Your task to perform on an android device: snooze an email in the gmail app Image 0: 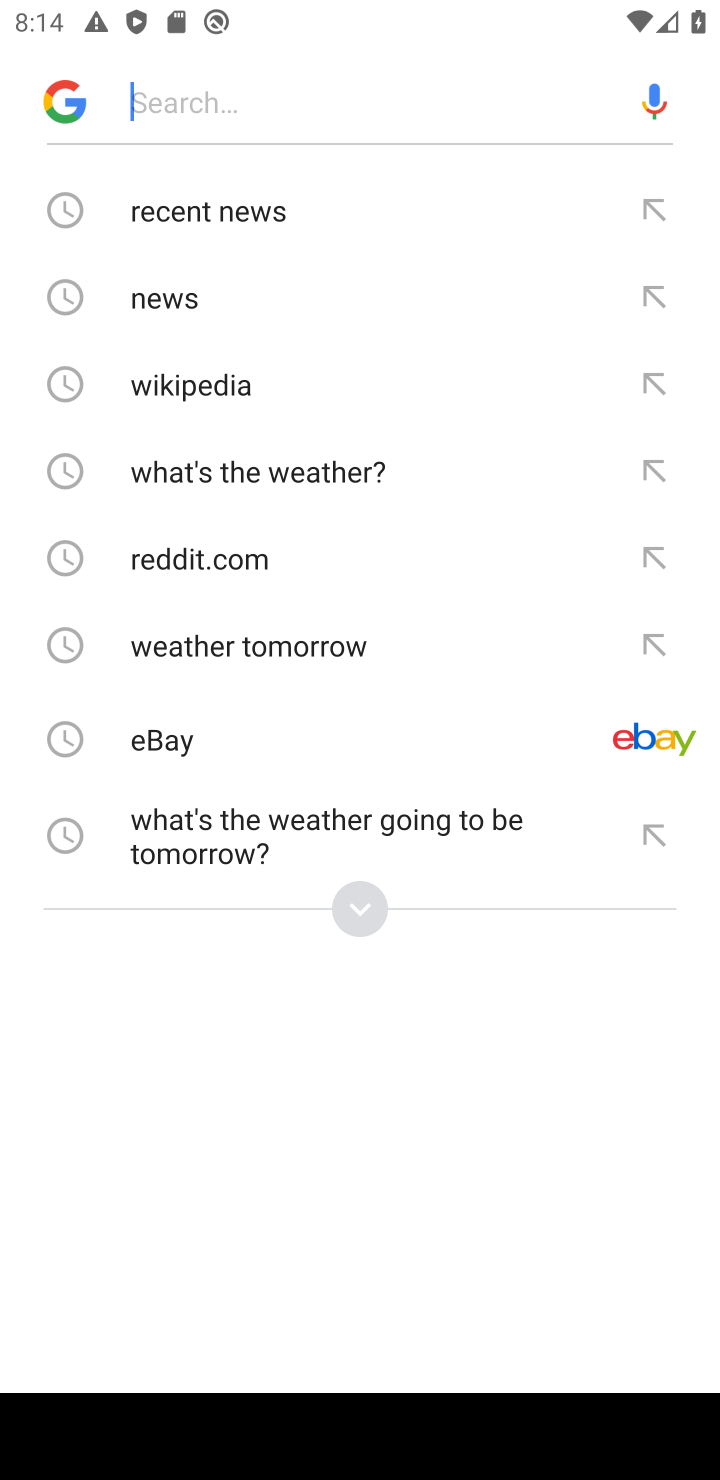
Step 0: press home button
Your task to perform on an android device: snooze an email in the gmail app Image 1: 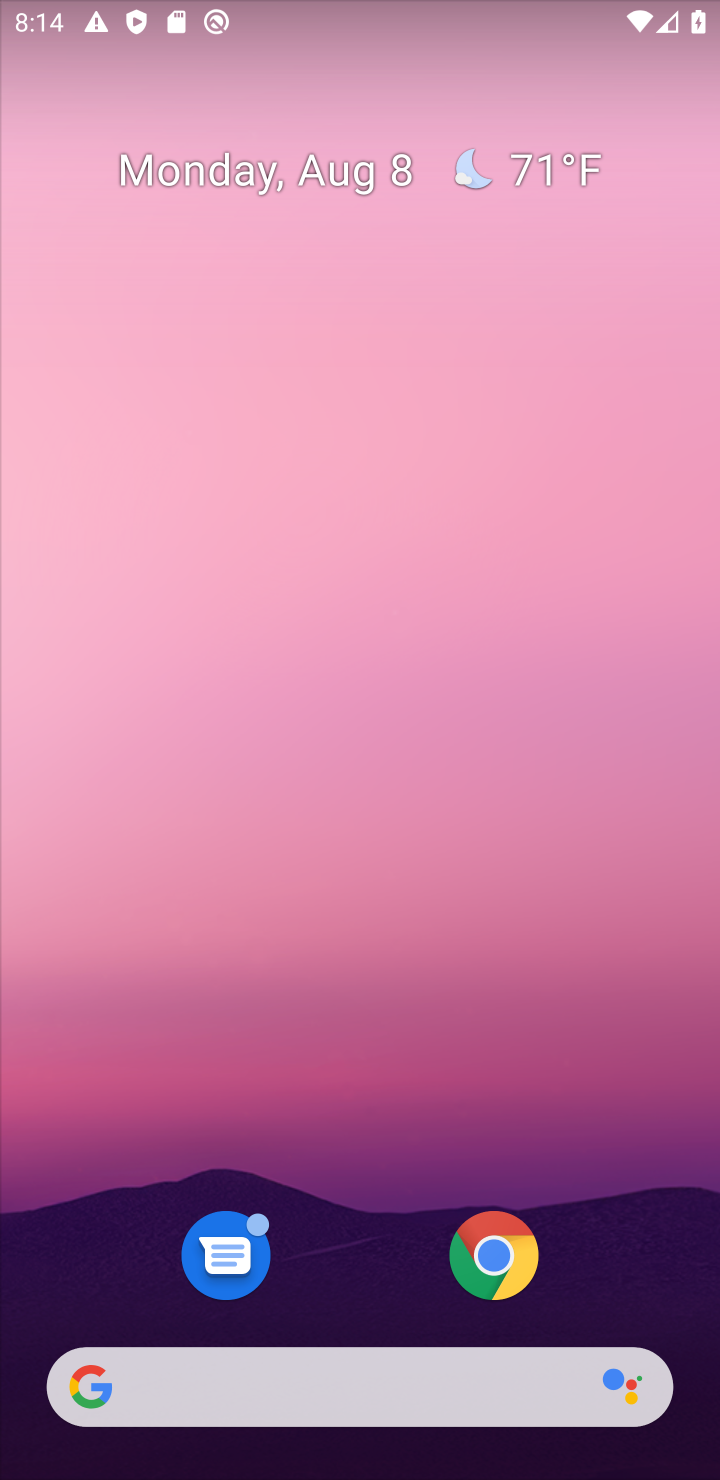
Step 1: drag from (366, 1261) to (398, 2)
Your task to perform on an android device: snooze an email in the gmail app Image 2: 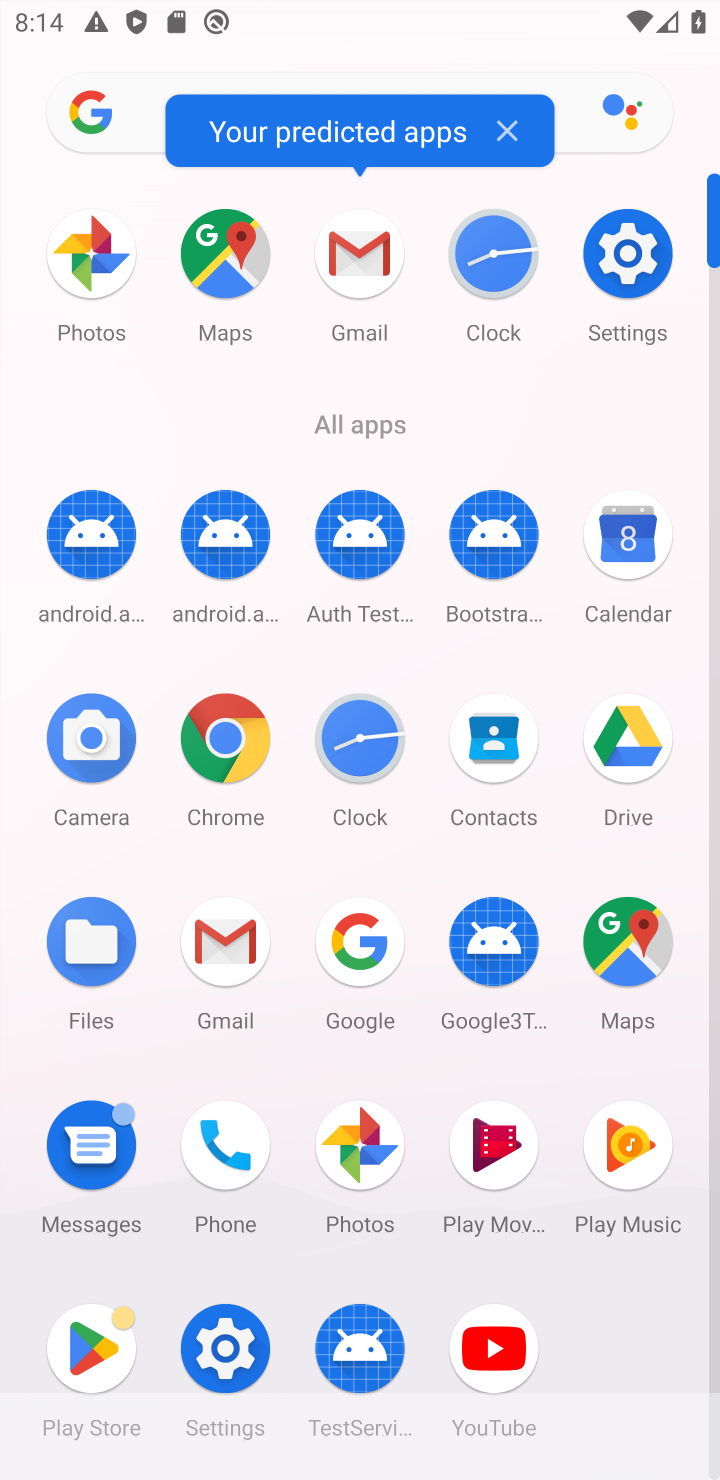
Step 2: click (361, 256)
Your task to perform on an android device: snooze an email in the gmail app Image 3: 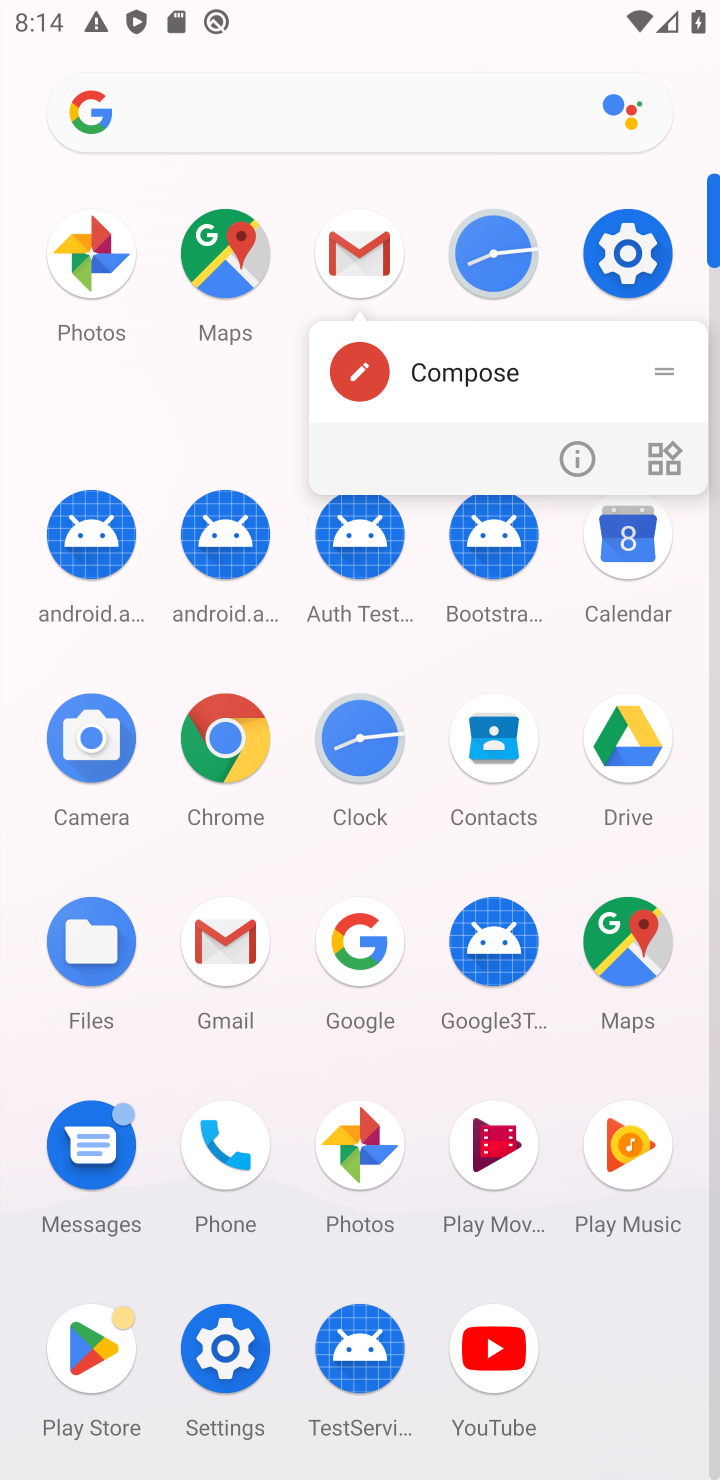
Step 3: click (356, 246)
Your task to perform on an android device: snooze an email in the gmail app Image 4: 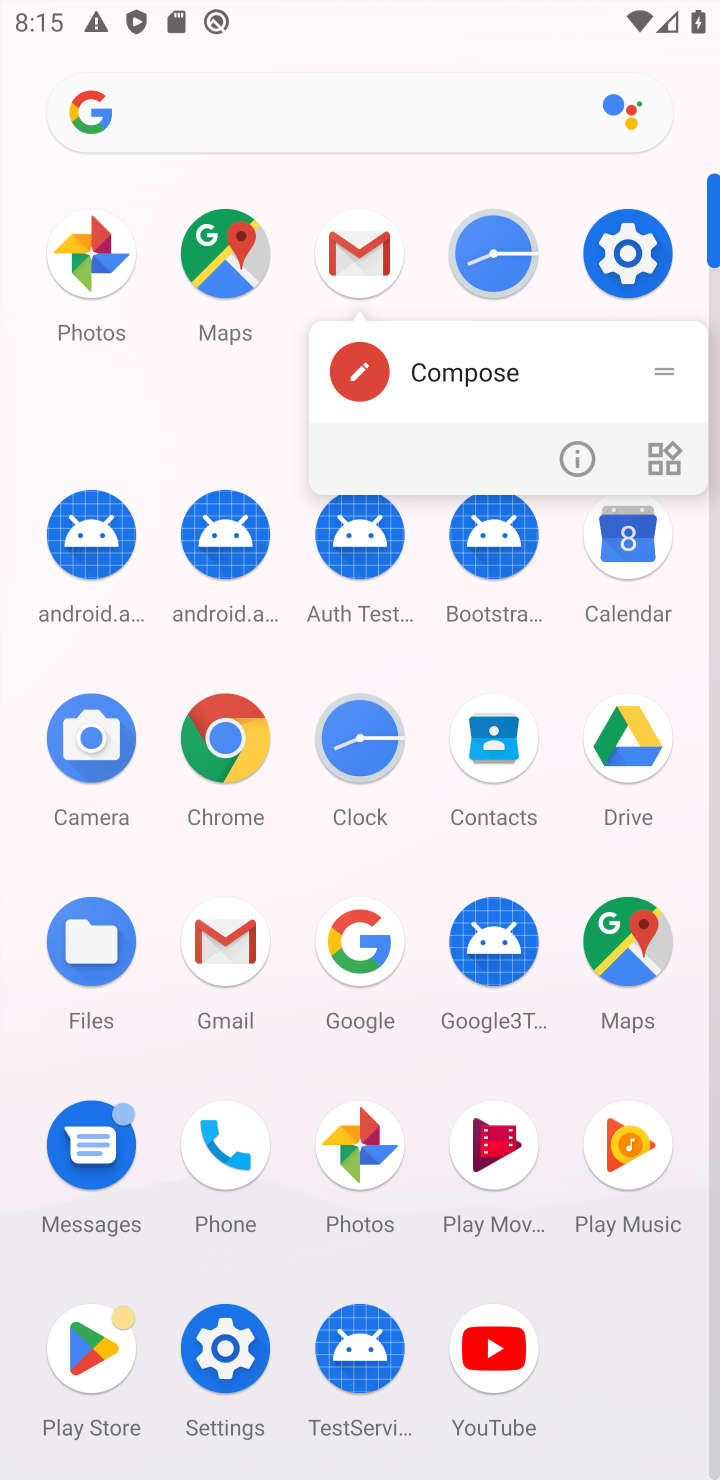
Step 4: click (355, 251)
Your task to perform on an android device: snooze an email in the gmail app Image 5: 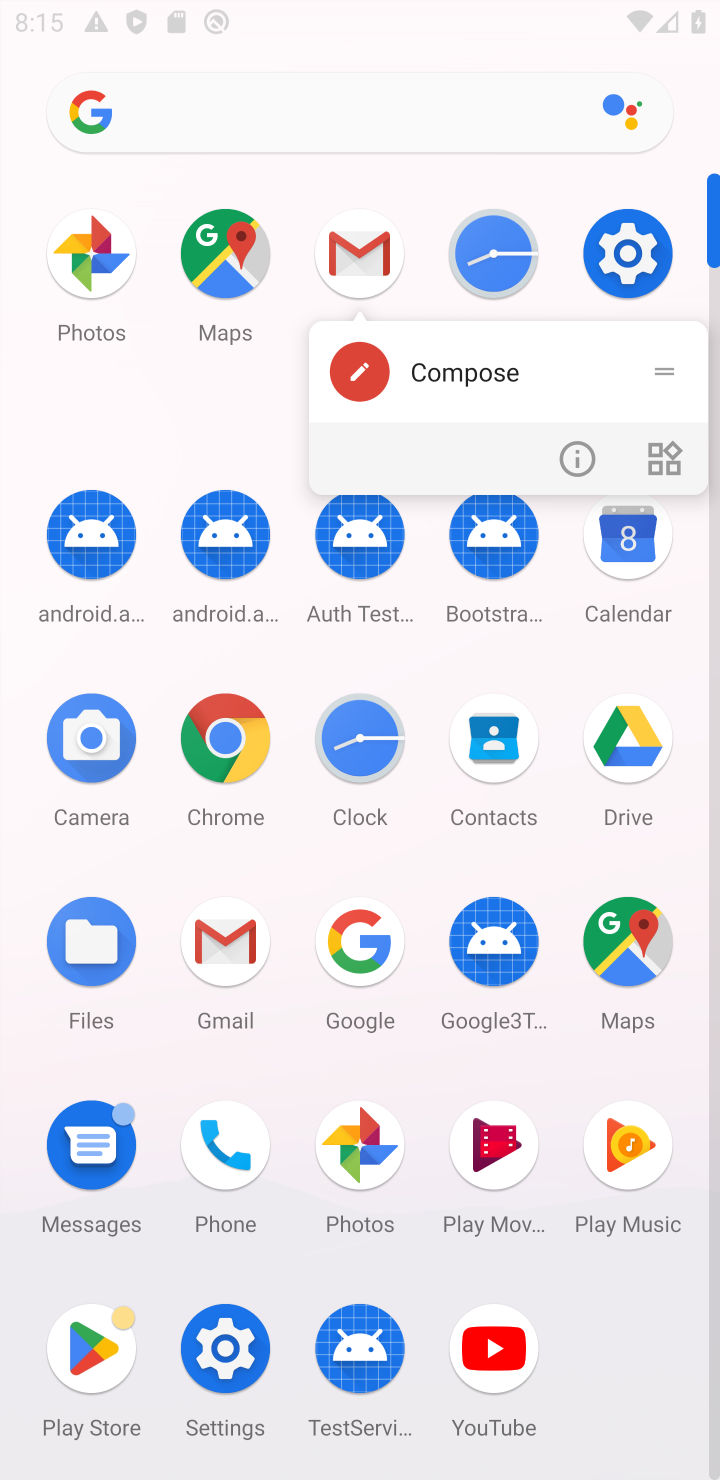
Step 5: click (221, 951)
Your task to perform on an android device: snooze an email in the gmail app Image 6: 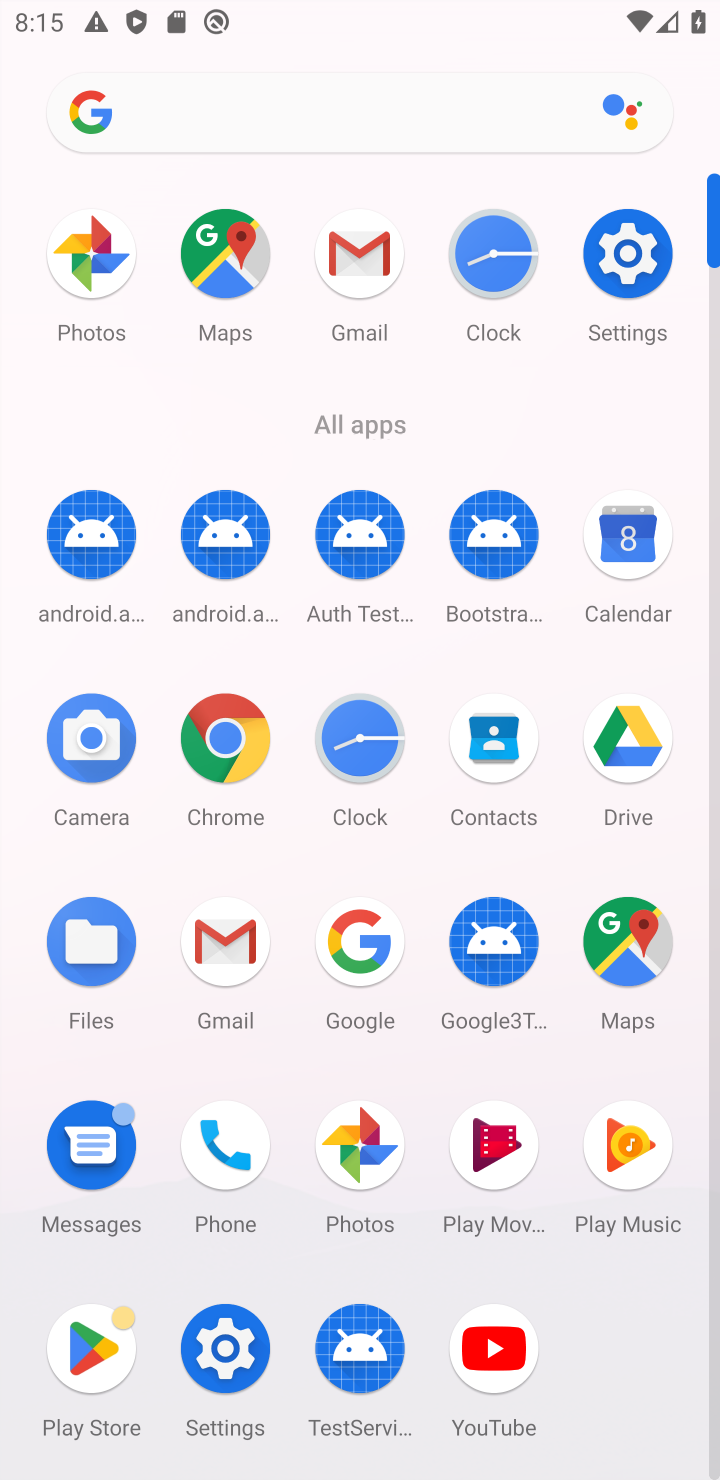
Step 6: click (216, 946)
Your task to perform on an android device: snooze an email in the gmail app Image 7: 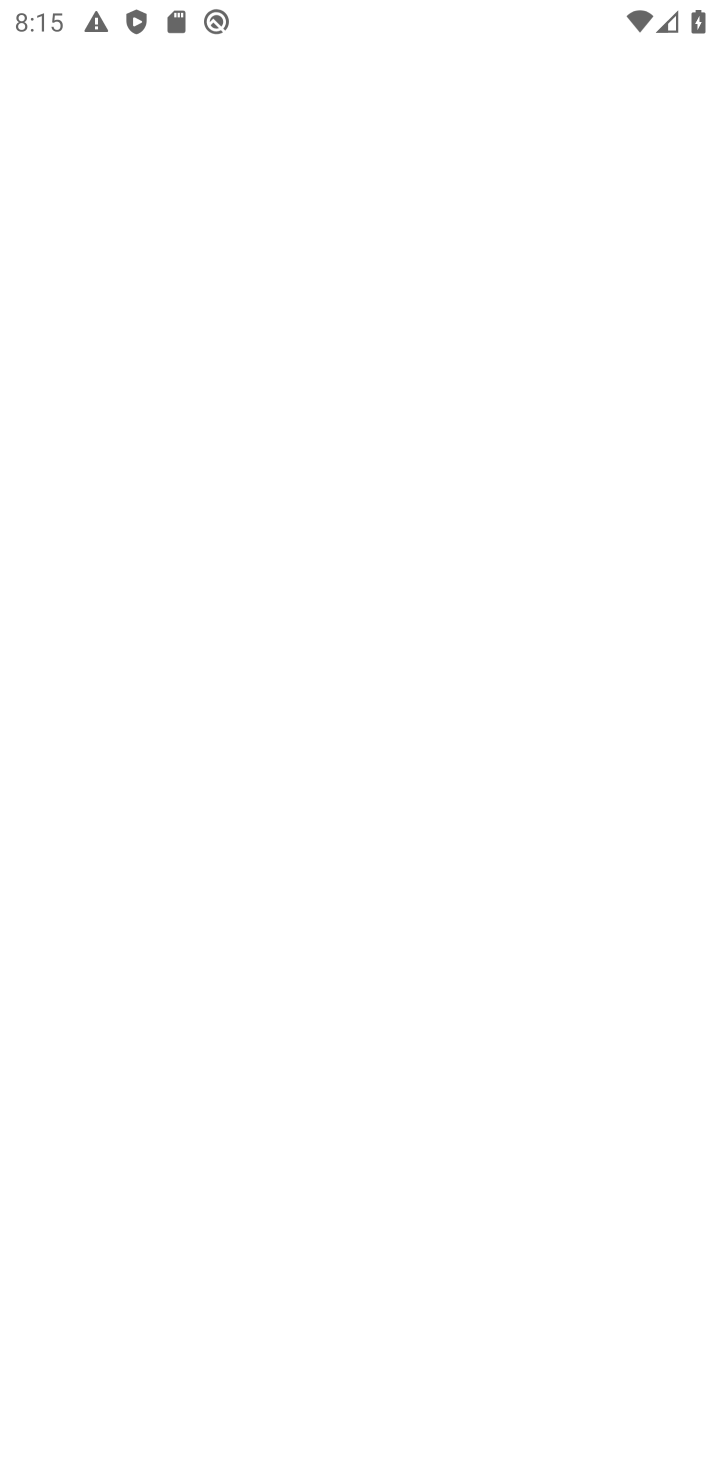
Step 7: click (241, 942)
Your task to perform on an android device: snooze an email in the gmail app Image 8: 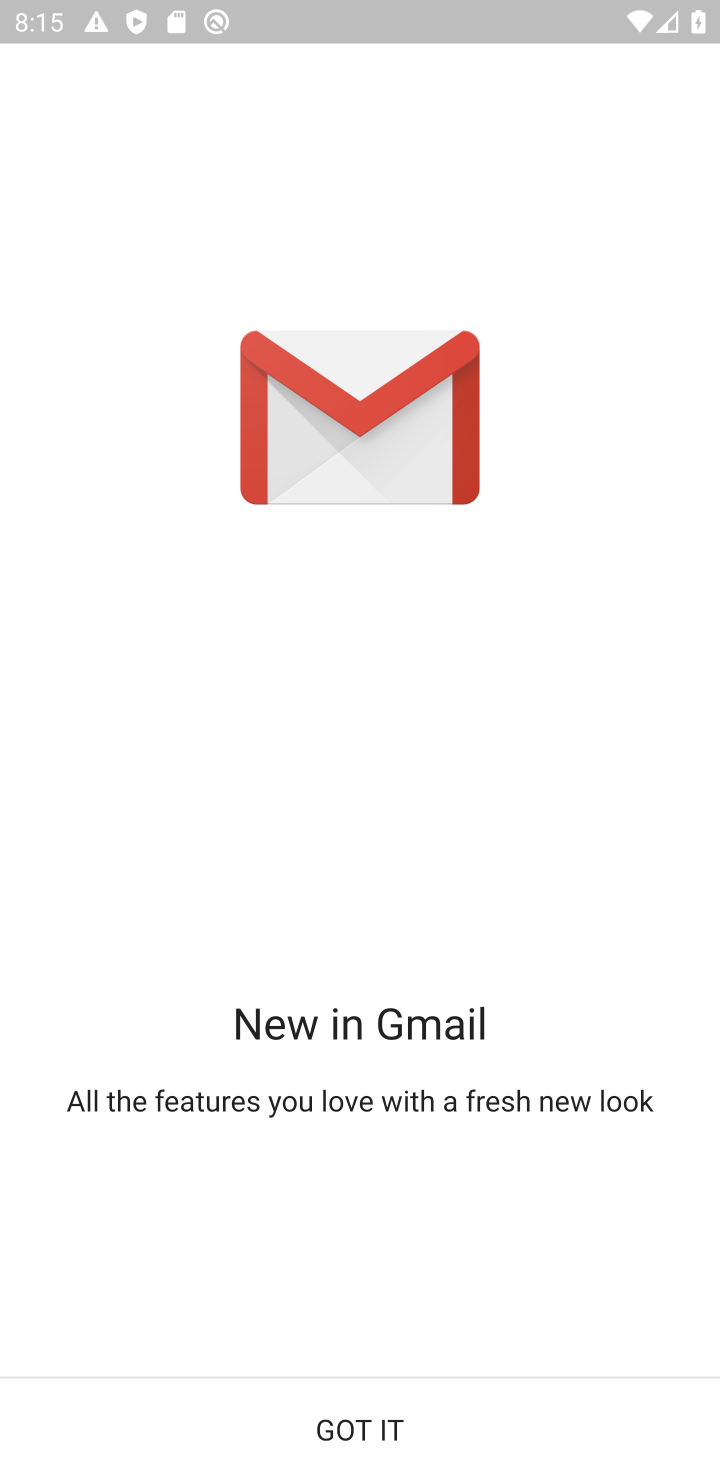
Step 8: click (375, 1431)
Your task to perform on an android device: snooze an email in the gmail app Image 9: 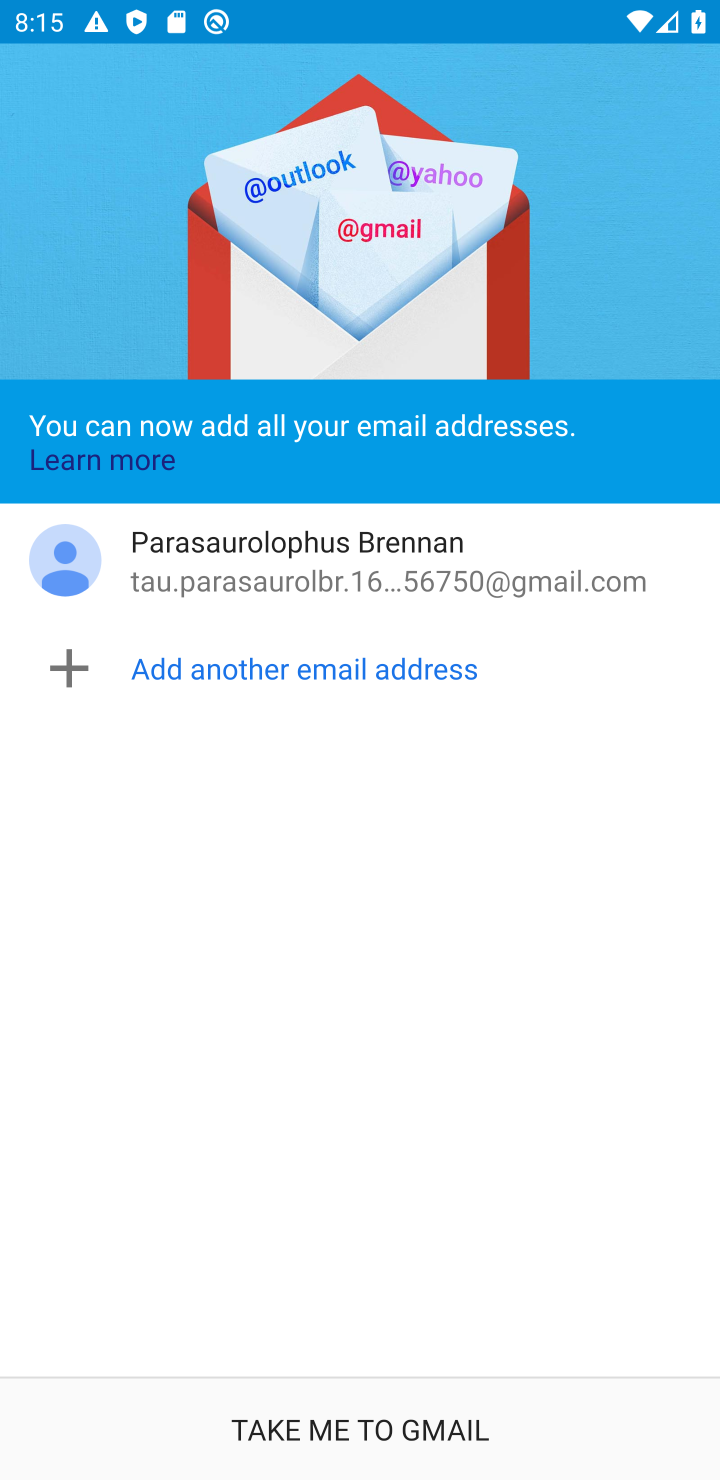
Step 9: click (356, 1440)
Your task to perform on an android device: snooze an email in the gmail app Image 10: 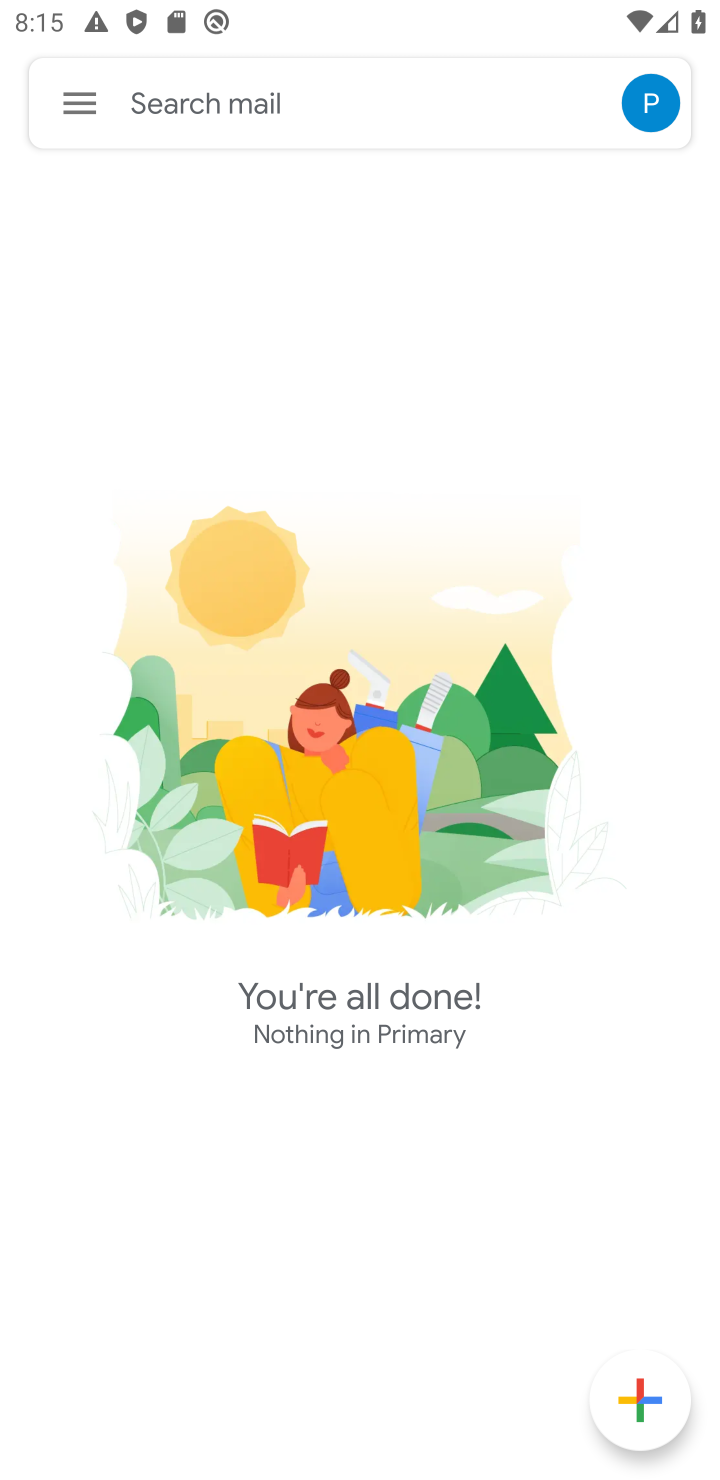
Step 10: click (70, 100)
Your task to perform on an android device: snooze an email in the gmail app Image 11: 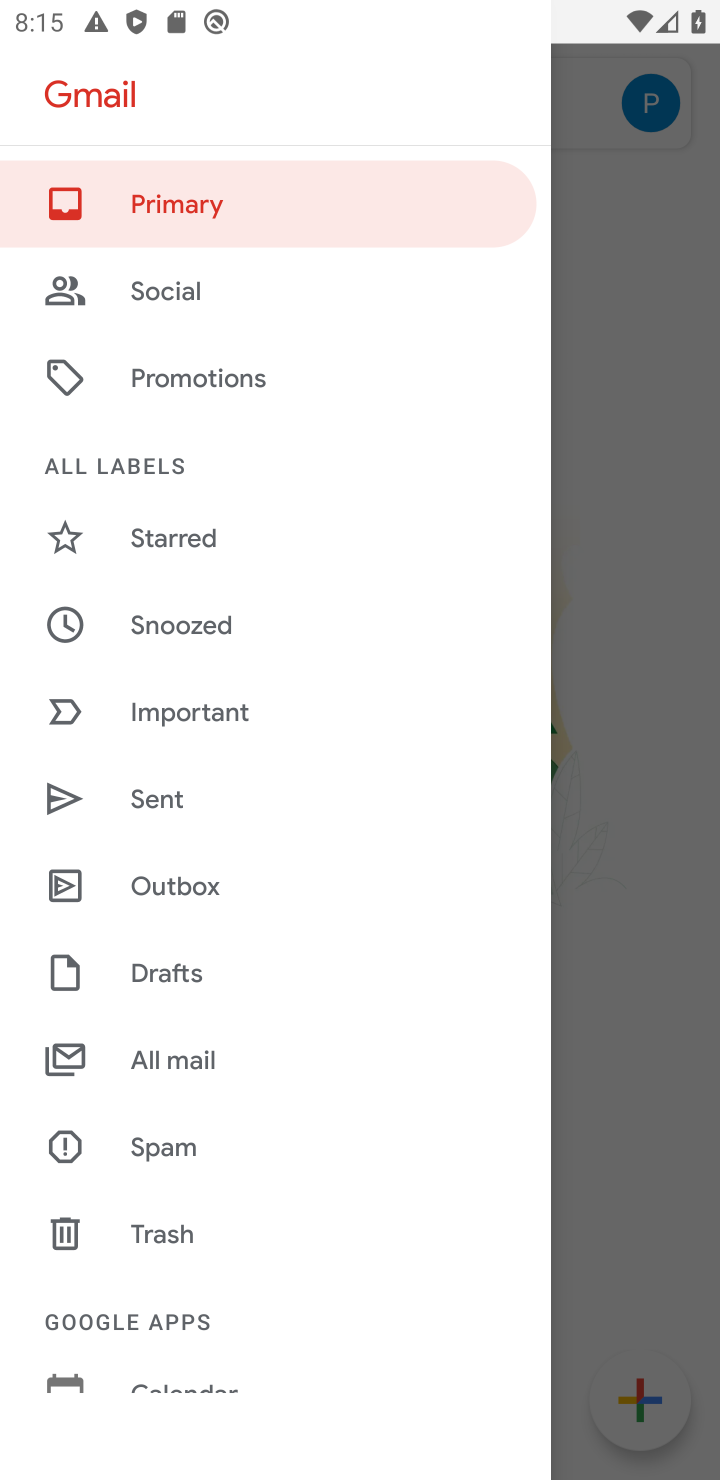
Step 11: click (671, 600)
Your task to perform on an android device: snooze an email in the gmail app Image 12: 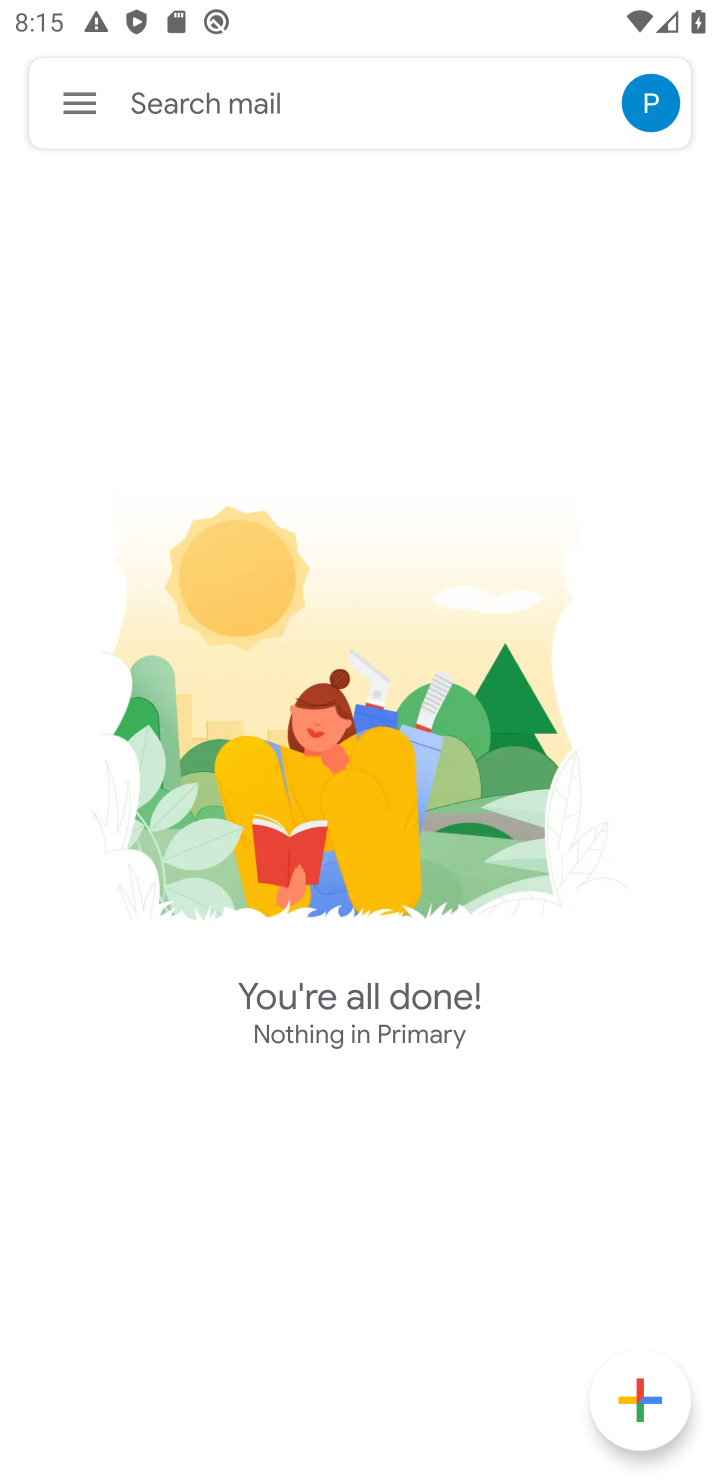
Step 12: task complete